Your task to perform on an android device: empty trash in the gmail app Image 0: 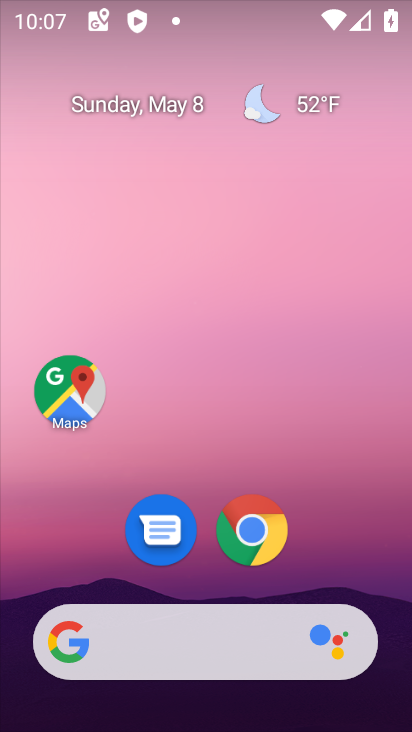
Step 0: drag from (356, 559) to (386, 140)
Your task to perform on an android device: empty trash in the gmail app Image 1: 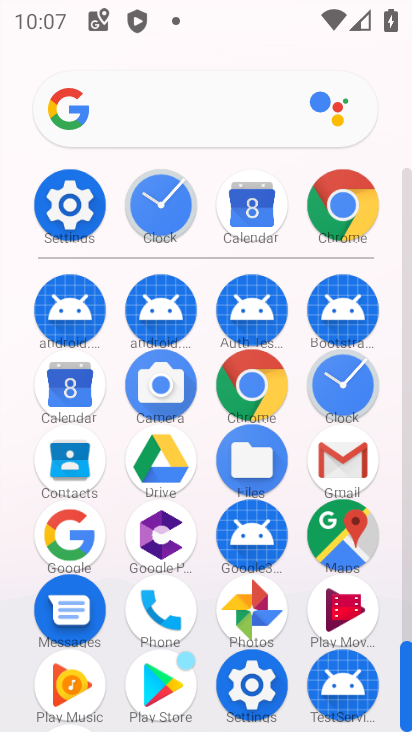
Step 1: click (358, 456)
Your task to perform on an android device: empty trash in the gmail app Image 2: 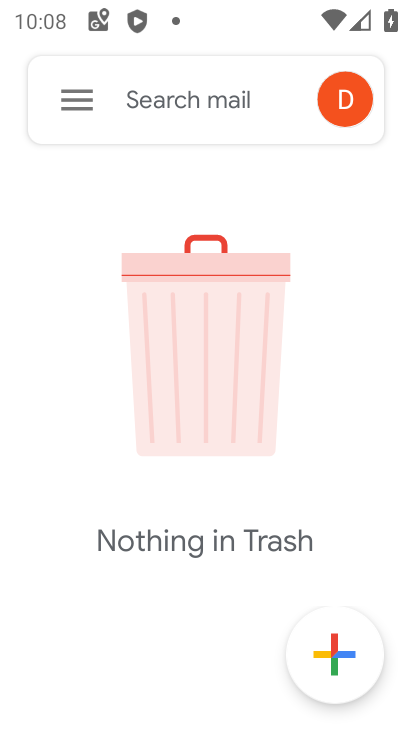
Step 2: click (76, 124)
Your task to perform on an android device: empty trash in the gmail app Image 3: 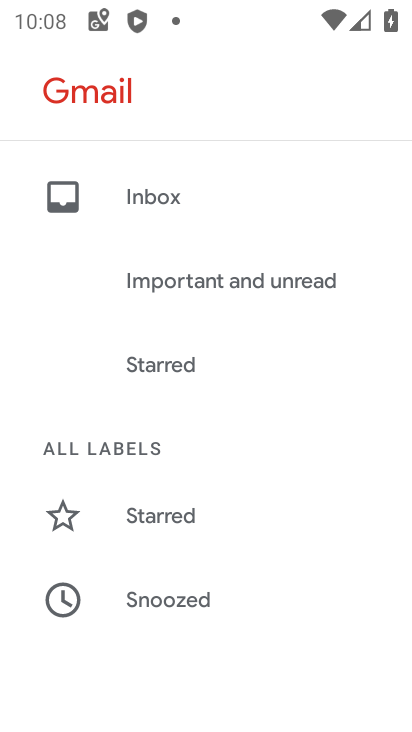
Step 3: drag from (241, 606) to (282, 192)
Your task to perform on an android device: empty trash in the gmail app Image 4: 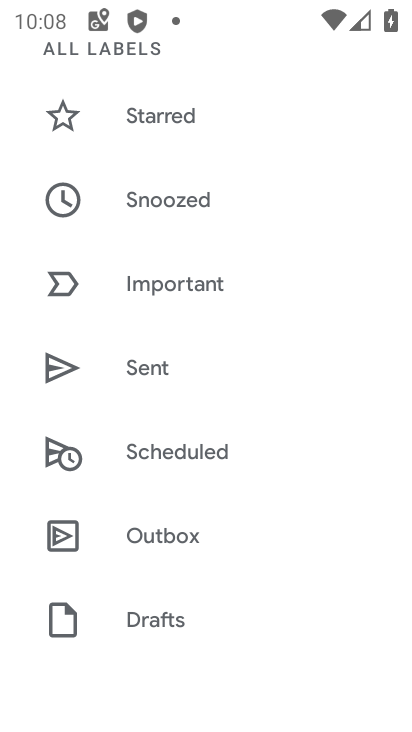
Step 4: drag from (218, 613) to (246, 389)
Your task to perform on an android device: empty trash in the gmail app Image 5: 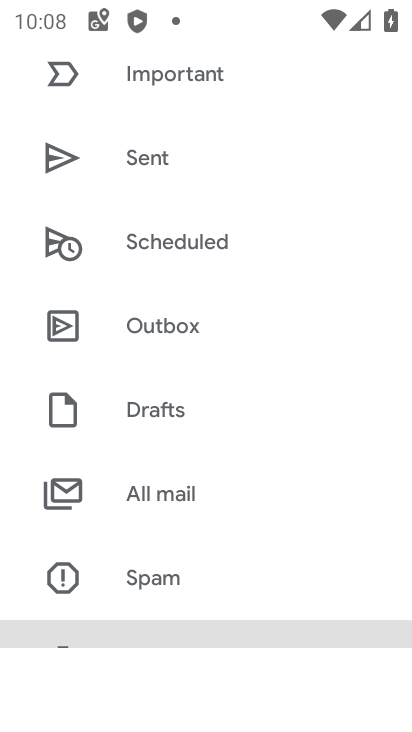
Step 5: drag from (239, 544) to (258, 361)
Your task to perform on an android device: empty trash in the gmail app Image 6: 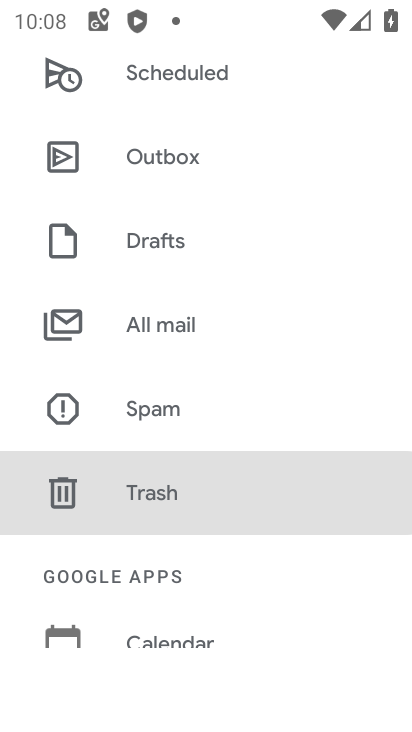
Step 6: click (112, 497)
Your task to perform on an android device: empty trash in the gmail app Image 7: 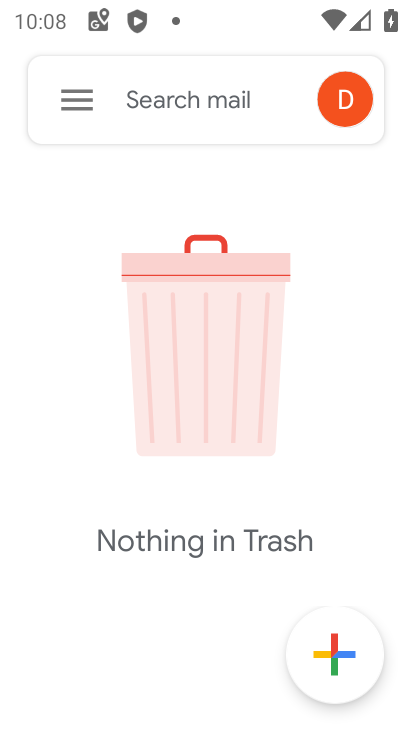
Step 7: task complete